Your task to perform on an android device: change the clock style Image 0: 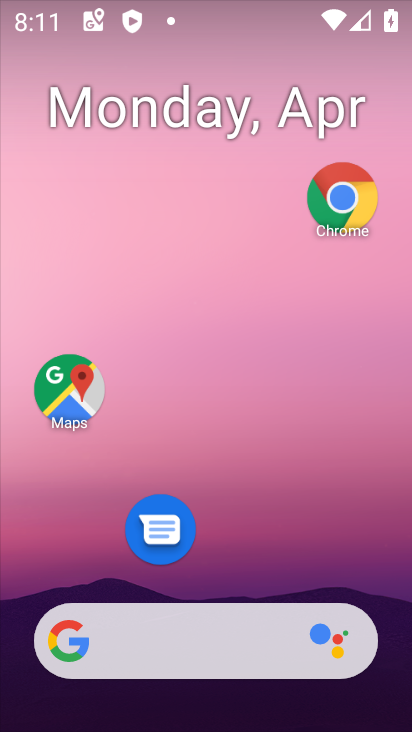
Step 0: drag from (218, 553) to (303, 8)
Your task to perform on an android device: change the clock style Image 1: 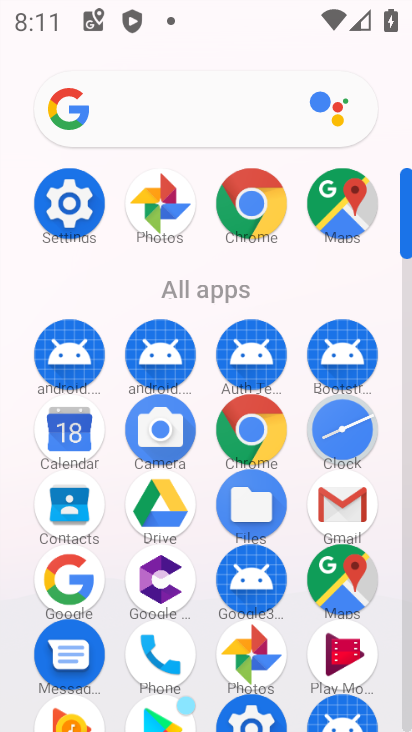
Step 1: click (345, 431)
Your task to perform on an android device: change the clock style Image 2: 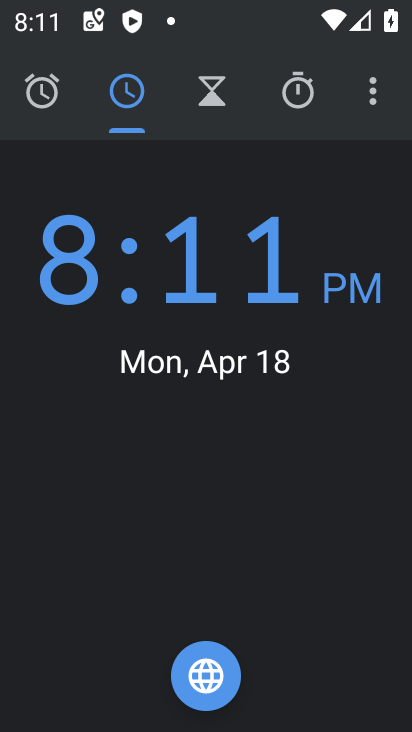
Step 2: click (383, 86)
Your task to perform on an android device: change the clock style Image 3: 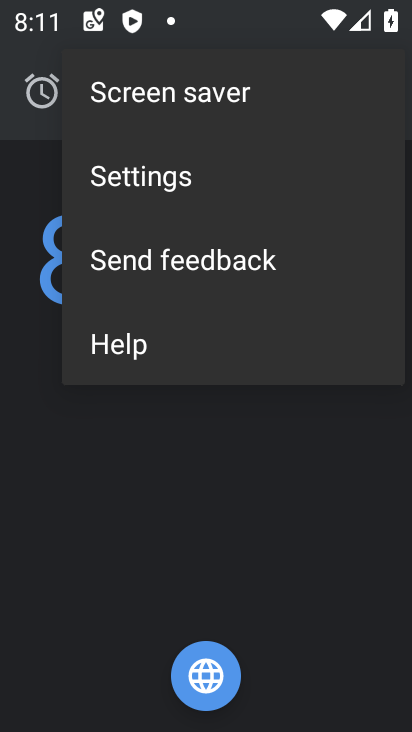
Step 3: click (201, 186)
Your task to perform on an android device: change the clock style Image 4: 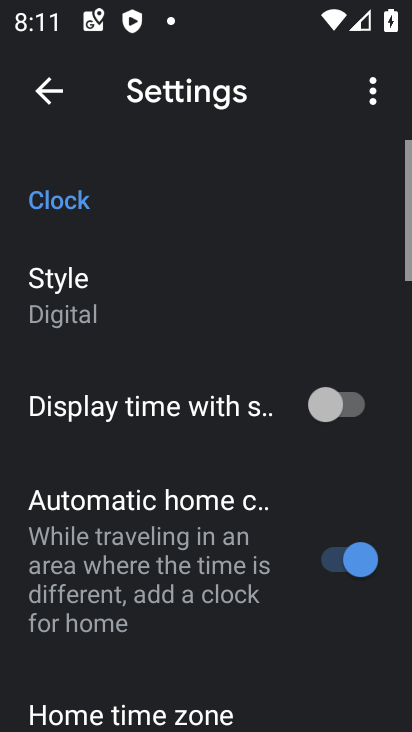
Step 4: click (89, 295)
Your task to perform on an android device: change the clock style Image 5: 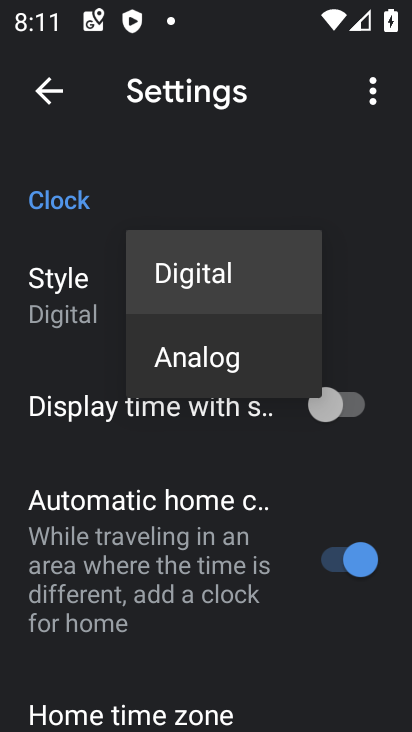
Step 5: click (193, 349)
Your task to perform on an android device: change the clock style Image 6: 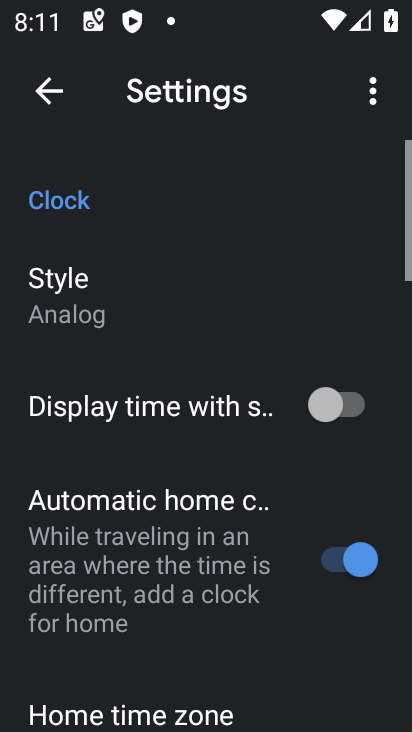
Step 6: task complete